Your task to perform on an android device: Open Chrome and go to the settings page Image 0: 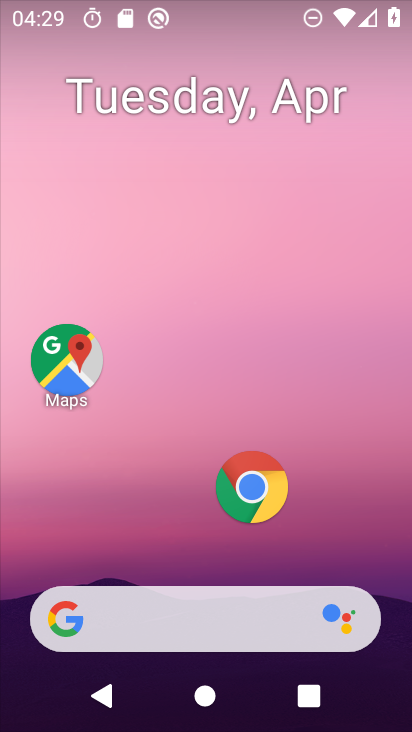
Step 0: click (245, 491)
Your task to perform on an android device: Open Chrome and go to the settings page Image 1: 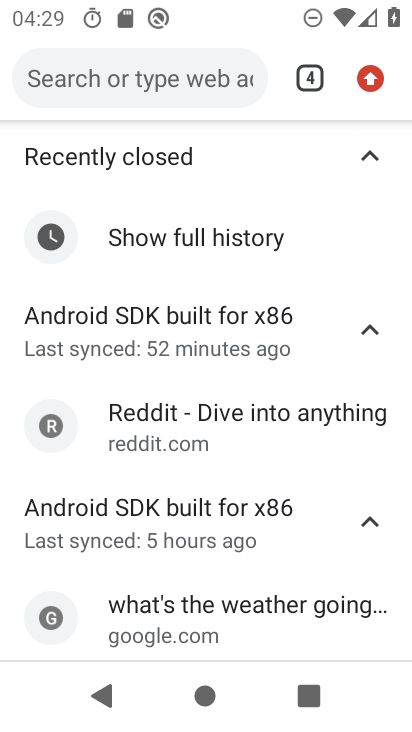
Step 1: click (363, 80)
Your task to perform on an android device: Open Chrome and go to the settings page Image 2: 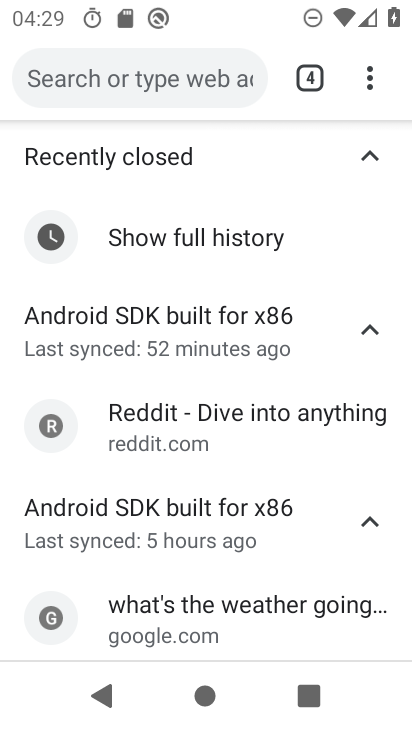
Step 2: click (364, 75)
Your task to perform on an android device: Open Chrome and go to the settings page Image 3: 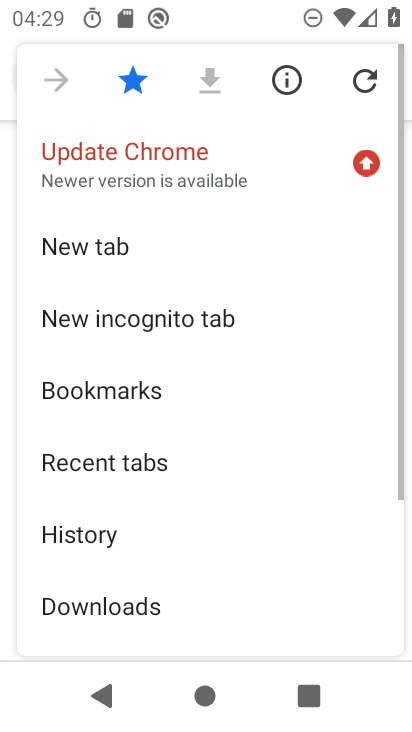
Step 3: drag from (199, 453) to (291, 126)
Your task to perform on an android device: Open Chrome and go to the settings page Image 4: 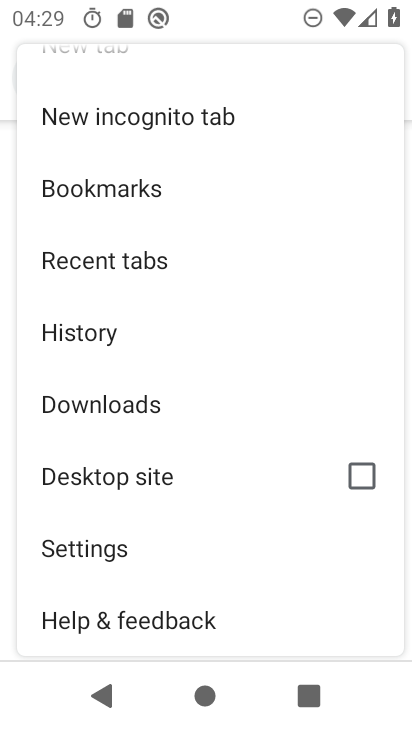
Step 4: click (85, 552)
Your task to perform on an android device: Open Chrome and go to the settings page Image 5: 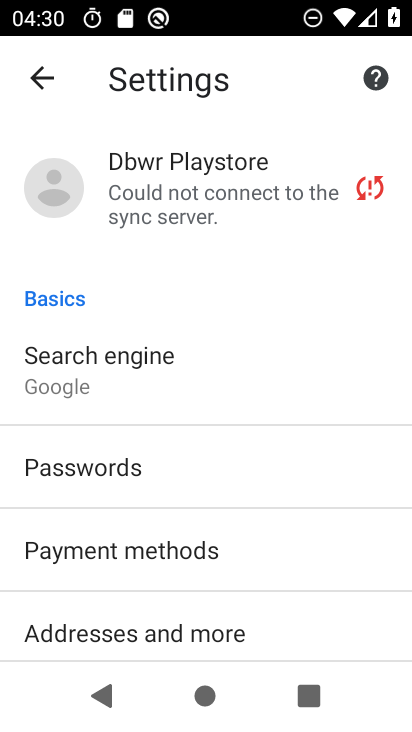
Step 5: task complete